Your task to perform on an android device: manage bookmarks in the chrome app Image 0: 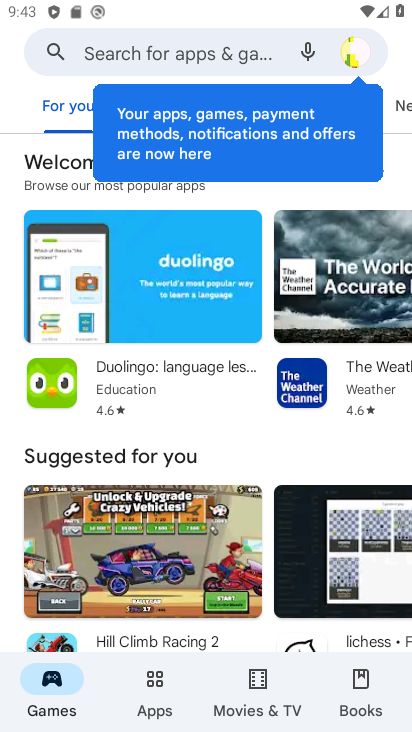
Step 0: press home button
Your task to perform on an android device: manage bookmarks in the chrome app Image 1: 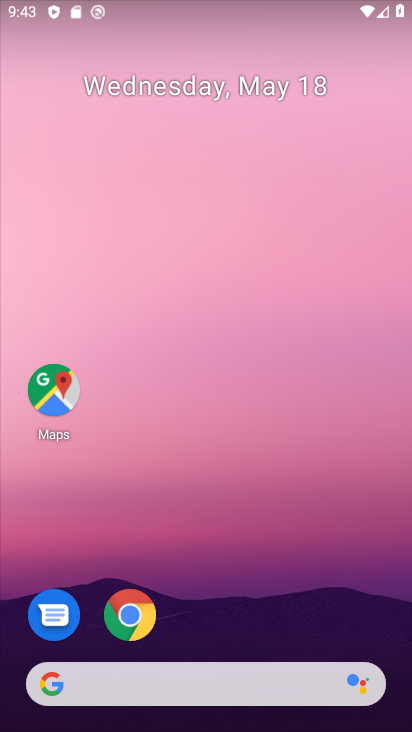
Step 1: click (129, 619)
Your task to perform on an android device: manage bookmarks in the chrome app Image 2: 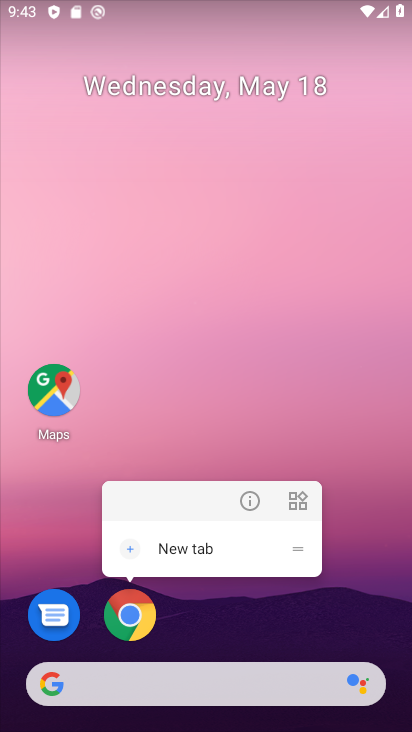
Step 2: click (127, 607)
Your task to perform on an android device: manage bookmarks in the chrome app Image 3: 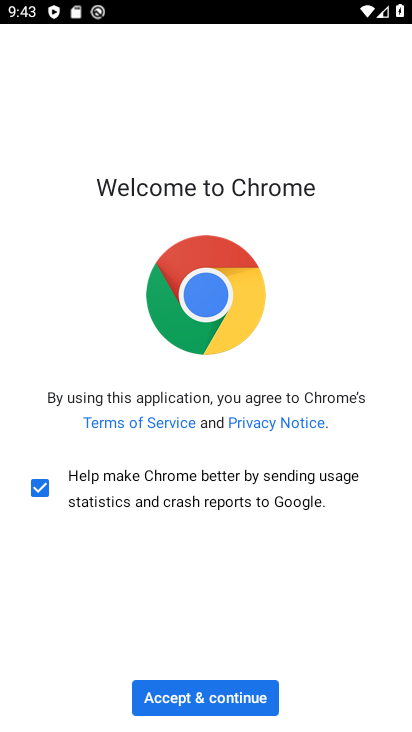
Step 3: click (232, 692)
Your task to perform on an android device: manage bookmarks in the chrome app Image 4: 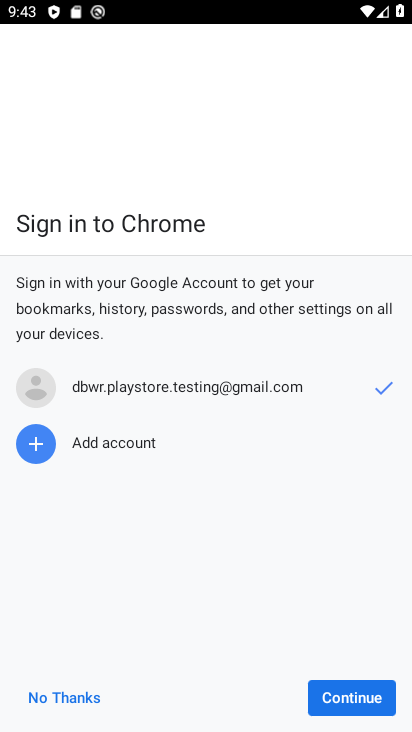
Step 4: click (340, 702)
Your task to perform on an android device: manage bookmarks in the chrome app Image 5: 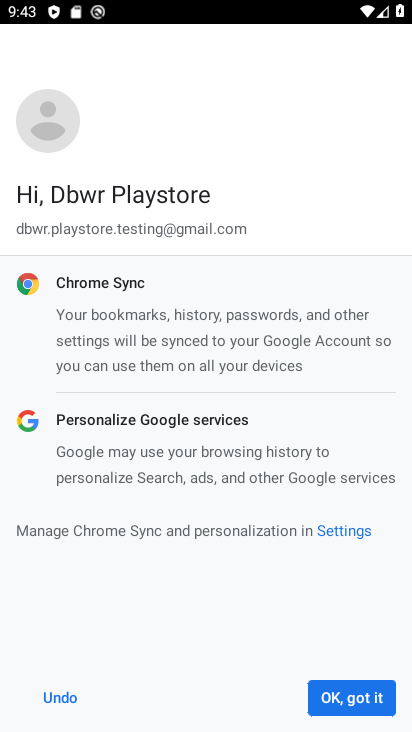
Step 5: click (341, 702)
Your task to perform on an android device: manage bookmarks in the chrome app Image 6: 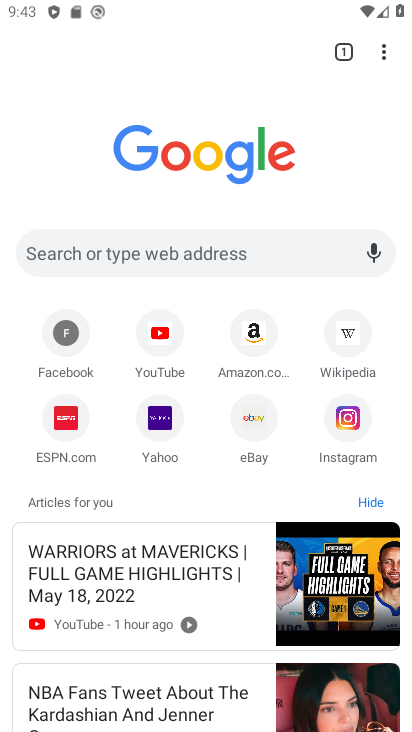
Step 6: click (383, 55)
Your task to perform on an android device: manage bookmarks in the chrome app Image 7: 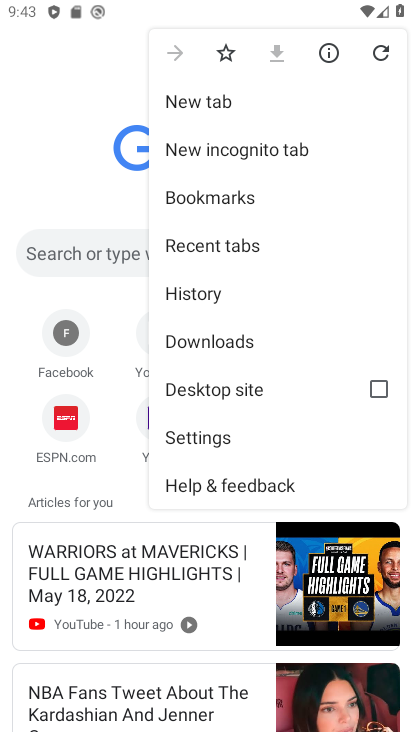
Step 7: click (211, 196)
Your task to perform on an android device: manage bookmarks in the chrome app Image 8: 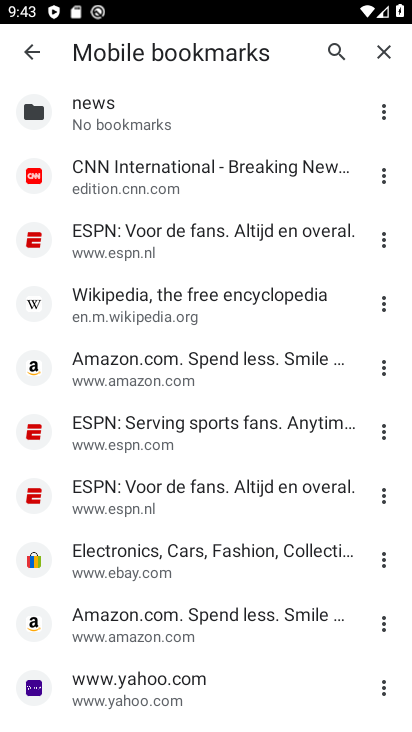
Step 8: click (135, 624)
Your task to perform on an android device: manage bookmarks in the chrome app Image 9: 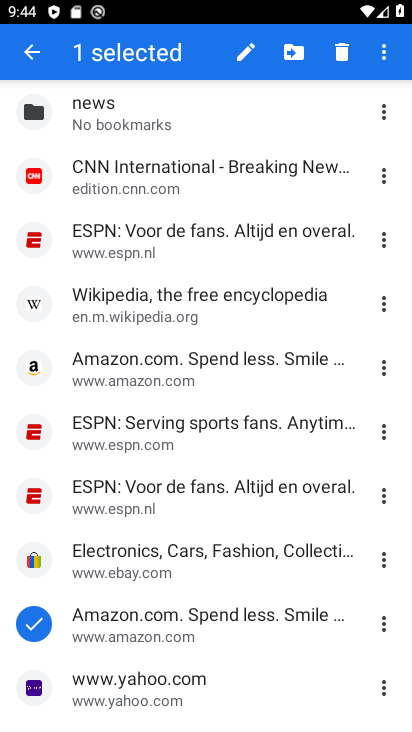
Step 9: click (351, 53)
Your task to perform on an android device: manage bookmarks in the chrome app Image 10: 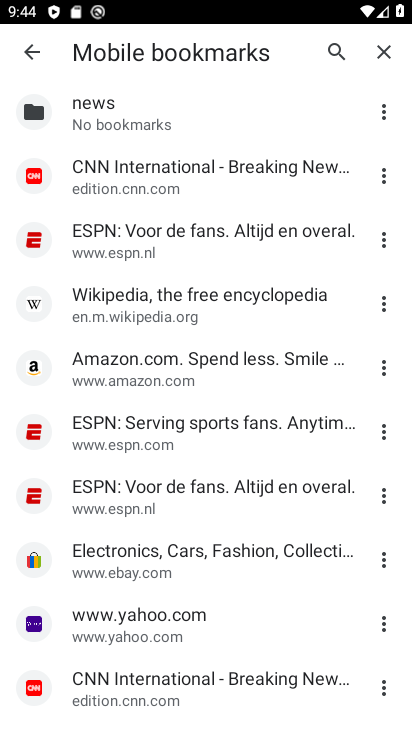
Step 10: click (127, 171)
Your task to perform on an android device: manage bookmarks in the chrome app Image 11: 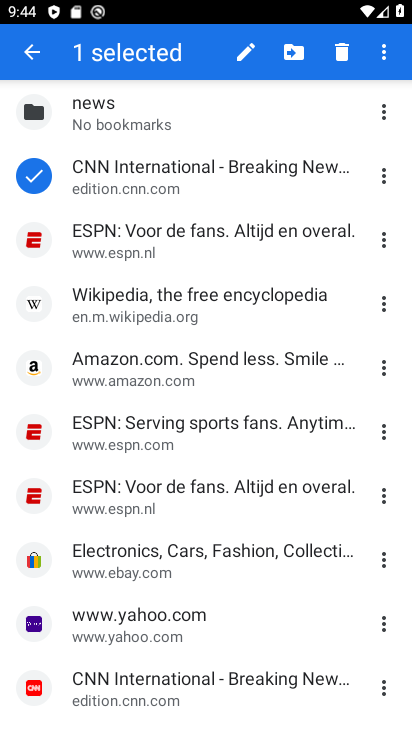
Step 11: click (338, 47)
Your task to perform on an android device: manage bookmarks in the chrome app Image 12: 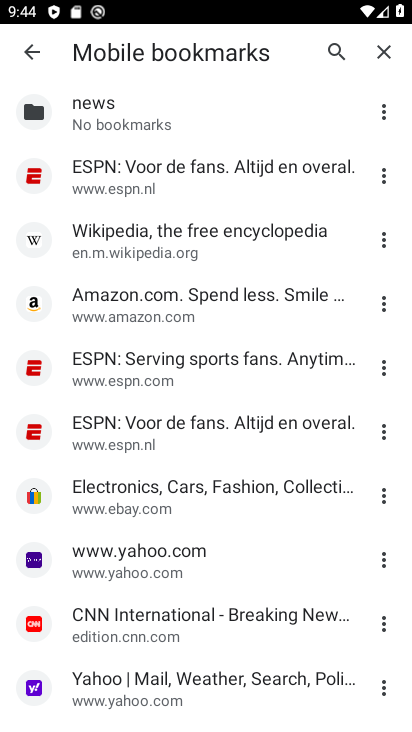
Step 12: task complete